Your task to perform on an android device: all mails in gmail Image 0: 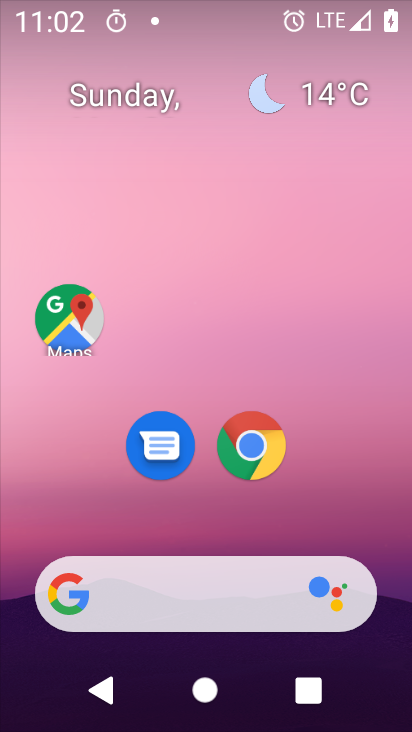
Step 0: drag from (193, 459) to (254, 107)
Your task to perform on an android device: all mails in gmail Image 1: 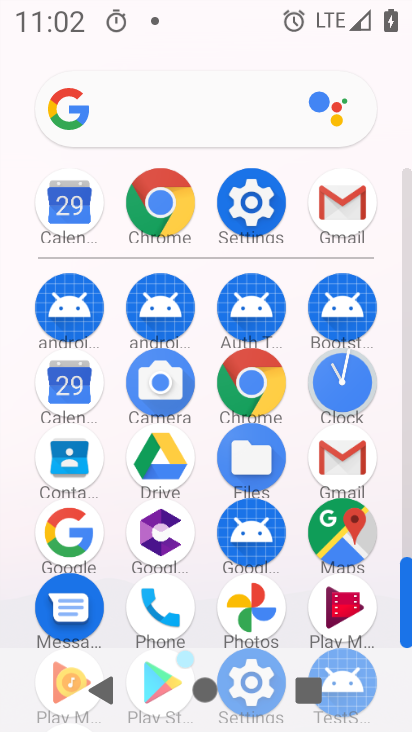
Step 1: click (341, 455)
Your task to perform on an android device: all mails in gmail Image 2: 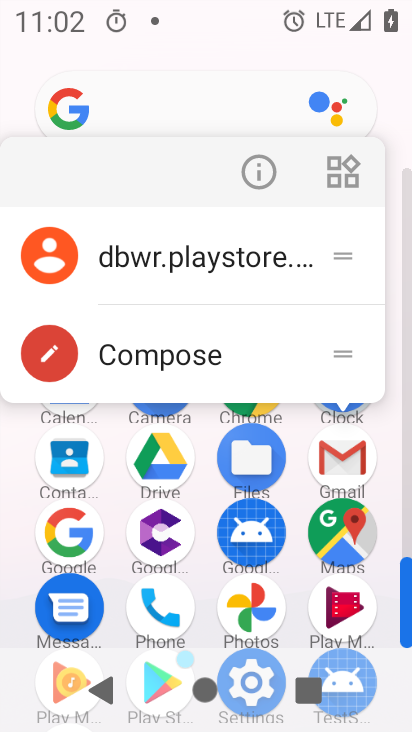
Step 2: click (171, 259)
Your task to perform on an android device: all mails in gmail Image 3: 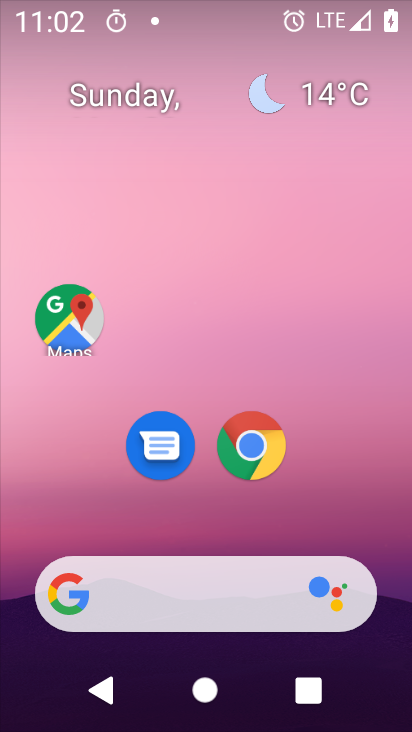
Step 3: drag from (200, 522) to (247, 163)
Your task to perform on an android device: all mails in gmail Image 4: 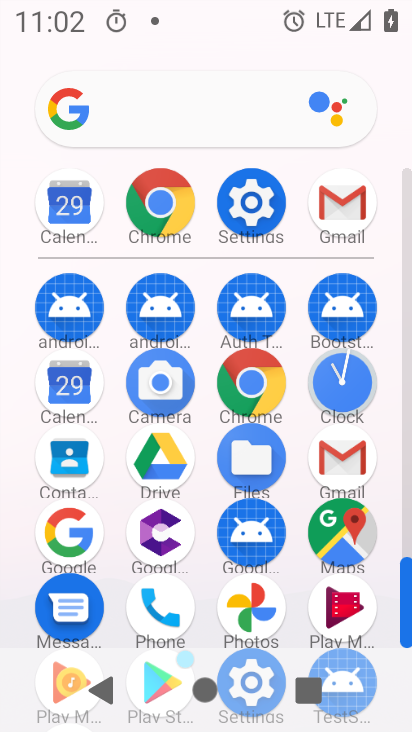
Step 4: click (338, 211)
Your task to perform on an android device: all mails in gmail Image 5: 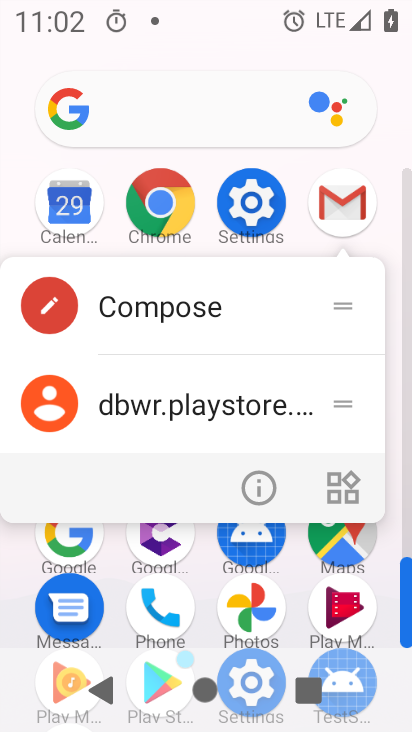
Step 5: click (255, 468)
Your task to perform on an android device: all mails in gmail Image 6: 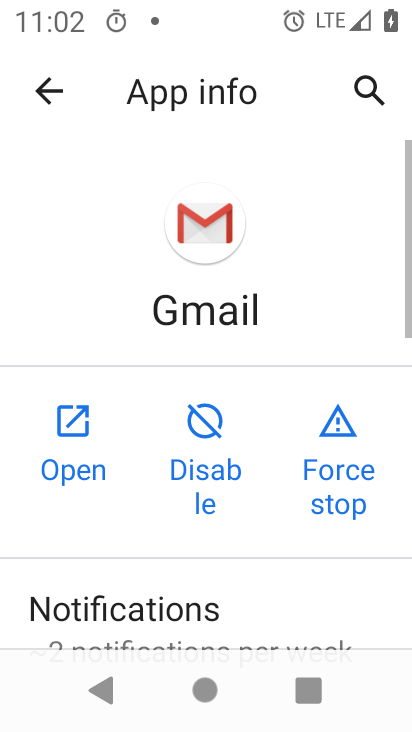
Step 6: click (79, 423)
Your task to perform on an android device: all mails in gmail Image 7: 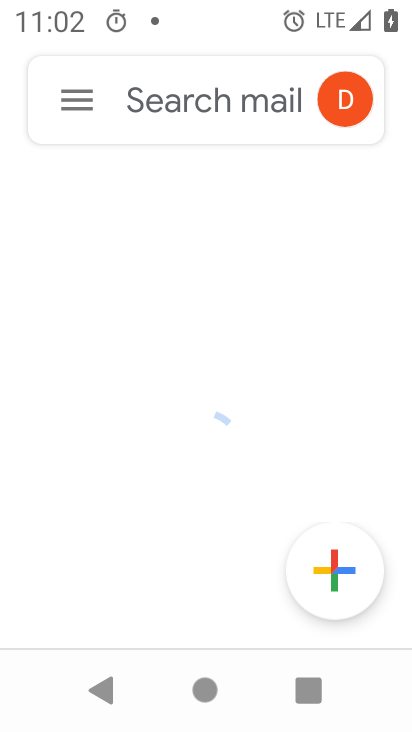
Step 7: click (95, 112)
Your task to perform on an android device: all mails in gmail Image 8: 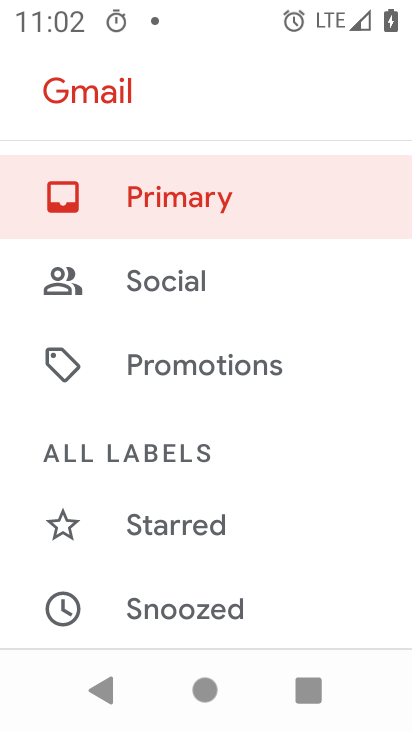
Step 8: drag from (231, 521) to (342, 153)
Your task to perform on an android device: all mails in gmail Image 9: 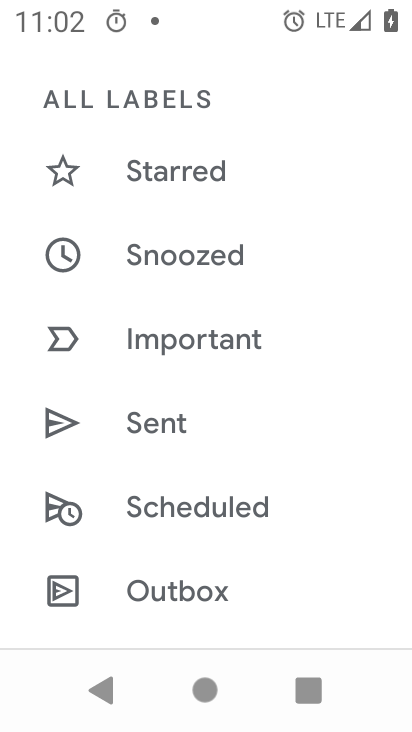
Step 9: drag from (233, 511) to (286, 271)
Your task to perform on an android device: all mails in gmail Image 10: 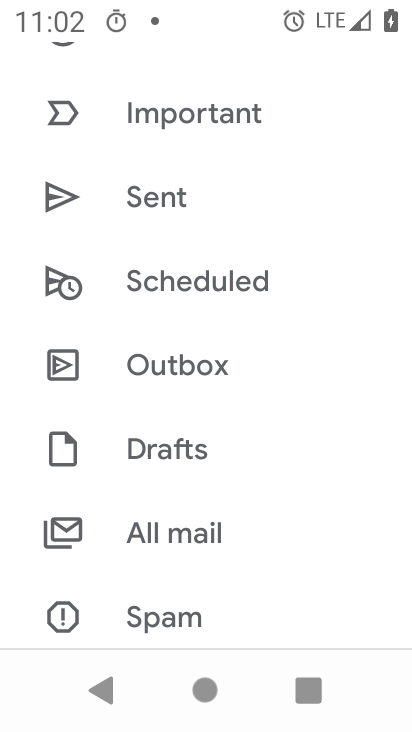
Step 10: click (282, 204)
Your task to perform on an android device: all mails in gmail Image 11: 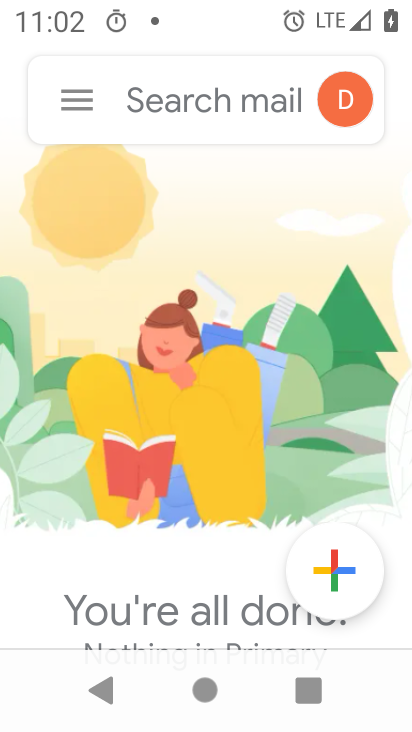
Step 11: drag from (237, 465) to (247, 241)
Your task to perform on an android device: all mails in gmail Image 12: 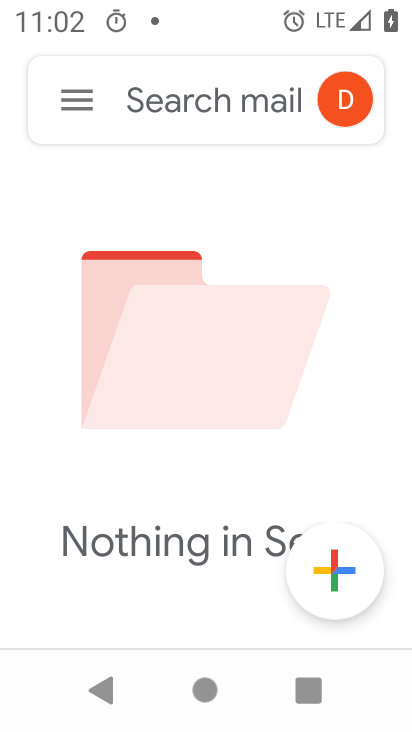
Step 12: click (68, 125)
Your task to perform on an android device: all mails in gmail Image 13: 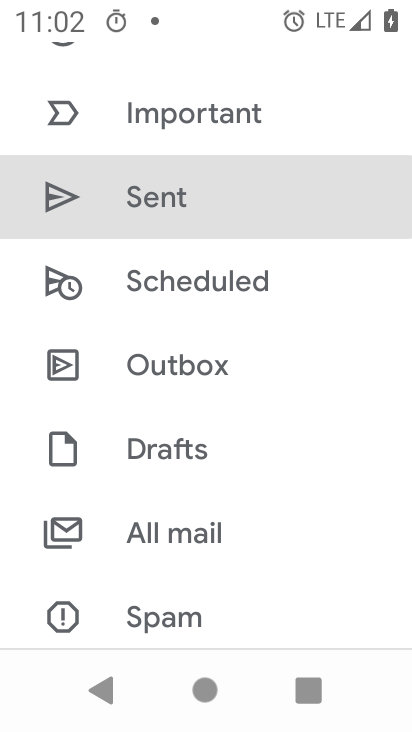
Step 13: drag from (188, 511) to (282, 8)
Your task to perform on an android device: all mails in gmail Image 14: 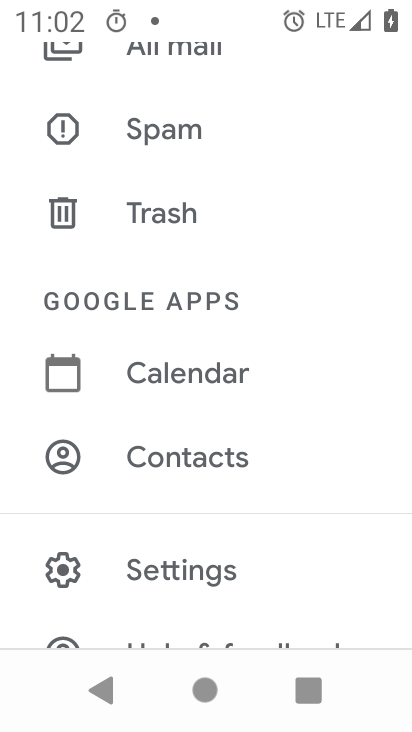
Step 14: click (178, 61)
Your task to perform on an android device: all mails in gmail Image 15: 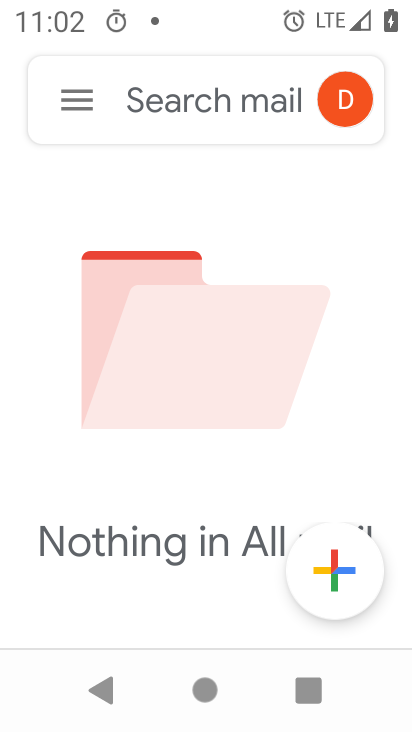
Step 15: task complete